Your task to perform on an android device: open a new tab in the chrome app Image 0: 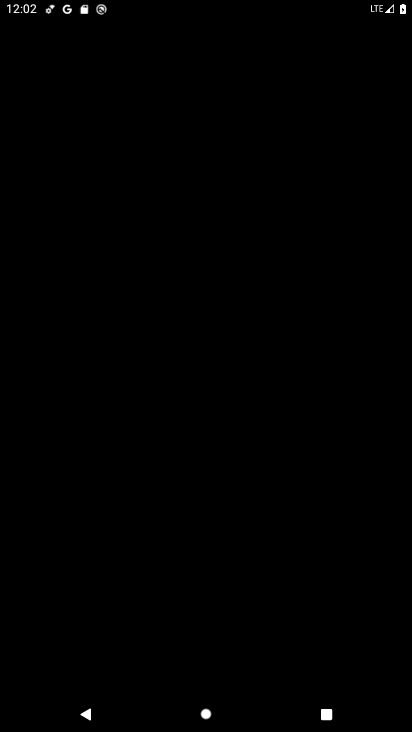
Step 0: click (126, 606)
Your task to perform on an android device: open a new tab in the chrome app Image 1: 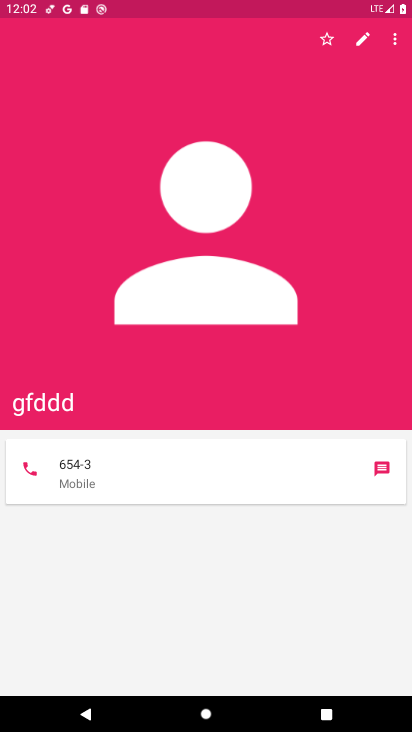
Step 1: press home button
Your task to perform on an android device: open a new tab in the chrome app Image 2: 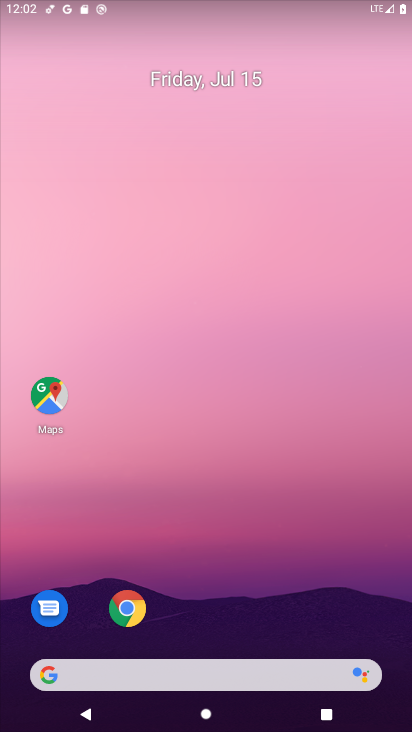
Step 2: click (122, 599)
Your task to perform on an android device: open a new tab in the chrome app Image 3: 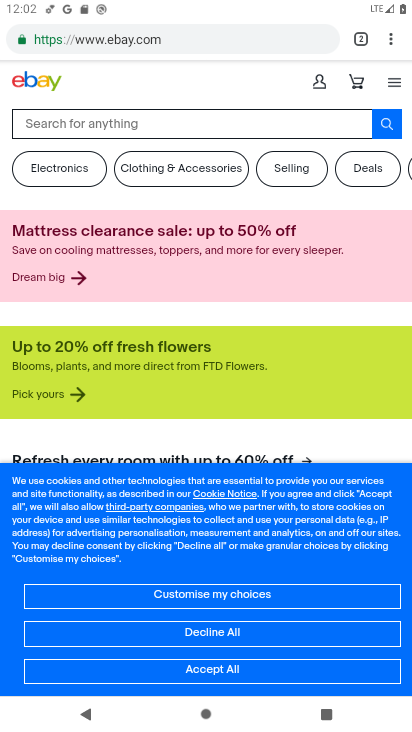
Step 3: click (389, 39)
Your task to perform on an android device: open a new tab in the chrome app Image 4: 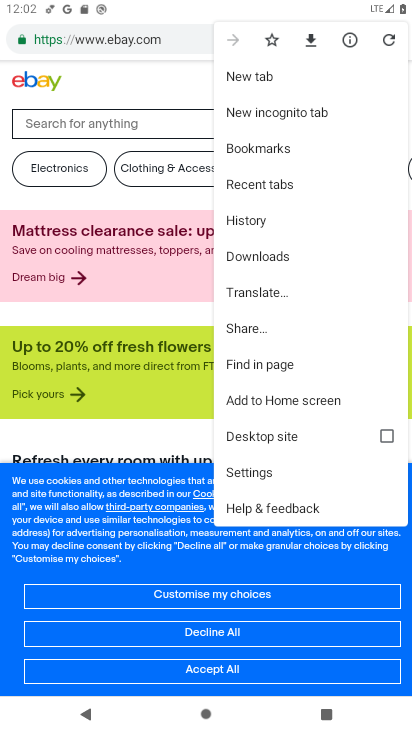
Step 4: click (268, 74)
Your task to perform on an android device: open a new tab in the chrome app Image 5: 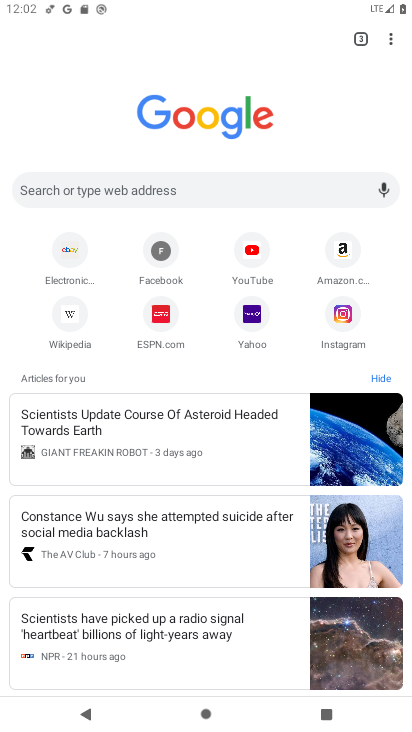
Step 5: task complete